Your task to perform on an android device: Go to battery settings Image 0: 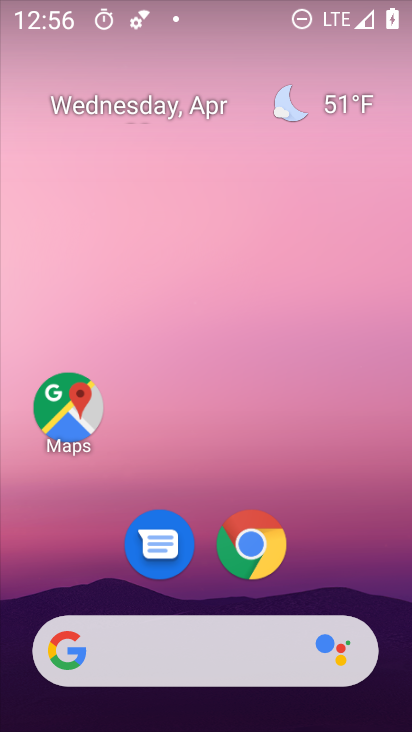
Step 0: drag from (333, 554) to (339, 99)
Your task to perform on an android device: Go to battery settings Image 1: 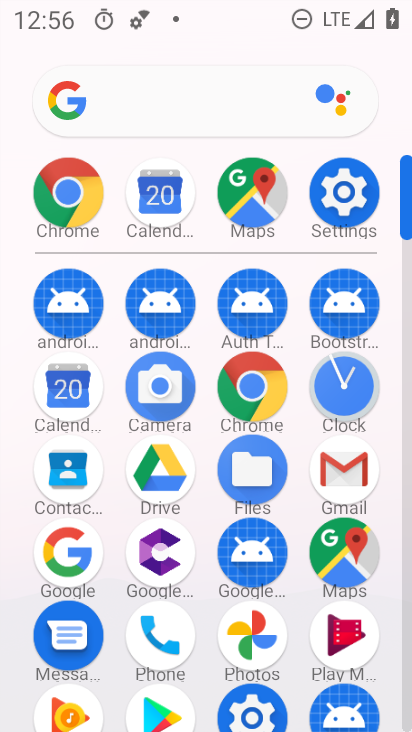
Step 1: click (350, 196)
Your task to perform on an android device: Go to battery settings Image 2: 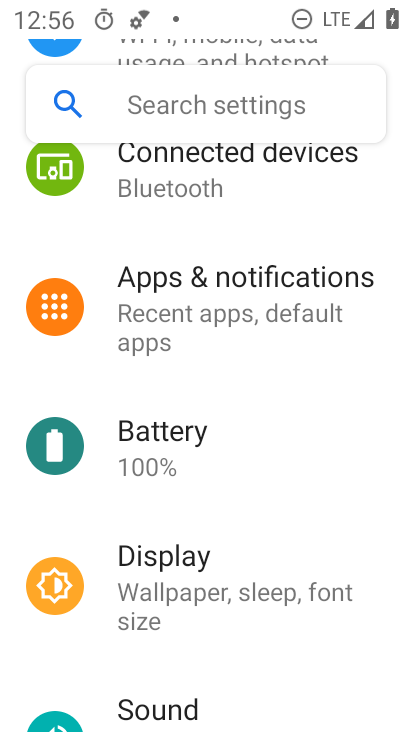
Step 2: drag from (385, 387) to (384, 529)
Your task to perform on an android device: Go to battery settings Image 3: 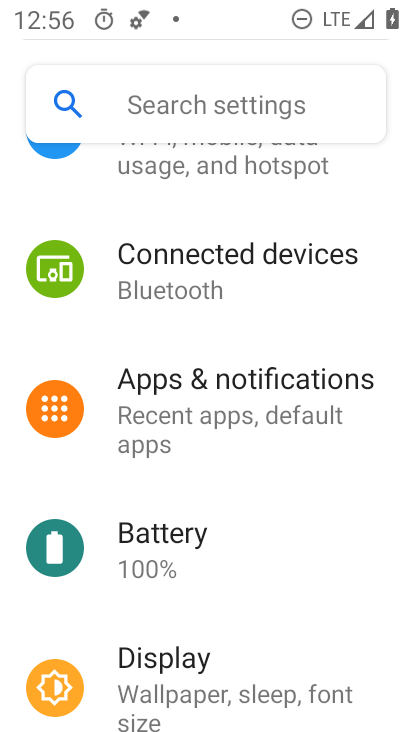
Step 3: drag from (382, 297) to (381, 519)
Your task to perform on an android device: Go to battery settings Image 4: 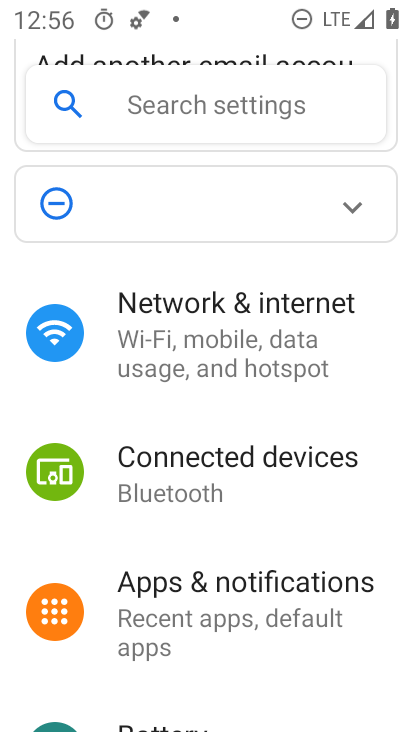
Step 4: drag from (385, 527) to (382, 391)
Your task to perform on an android device: Go to battery settings Image 5: 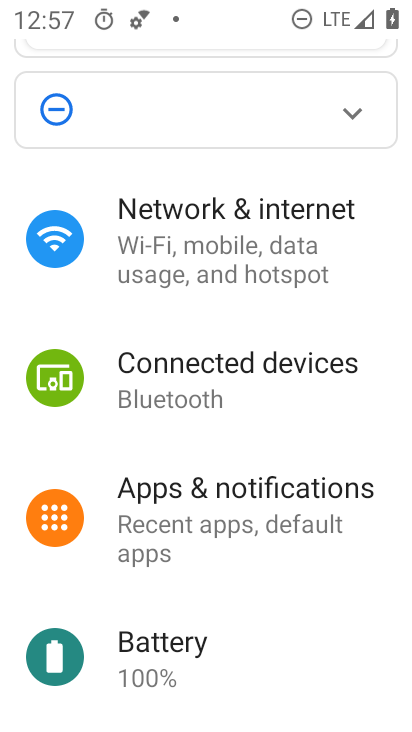
Step 5: drag from (361, 627) to (361, 437)
Your task to perform on an android device: Go to battery settings Image 6: 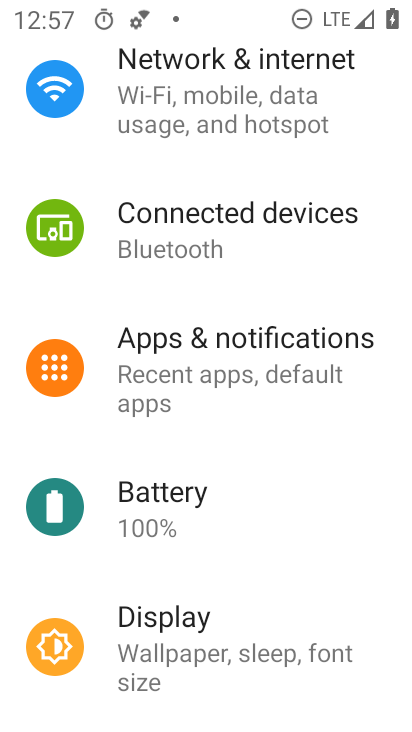
Step 6: drag from (379, 599) to (372, 486)
Your task to perform on an android device: Go to battery settings Image 7: 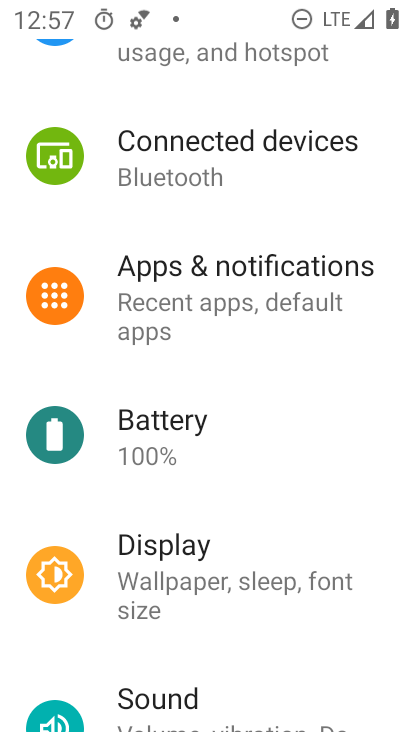
Step 7: click (164, 452)
Your task to perform on an android device: Go to battery settings Image 8: 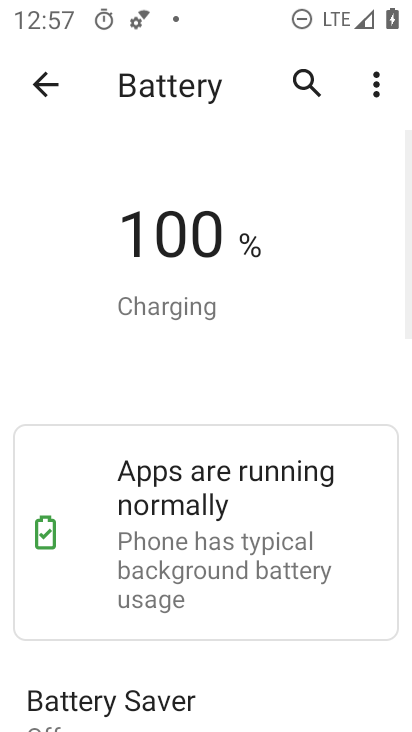
Step 8: task complete